Your task to perform on an android device: turn smart compose on in the gmail app Image 0: 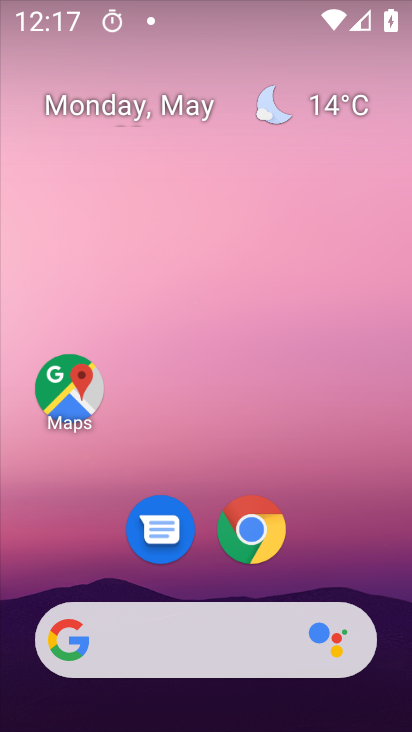
Step 0: drag from (396, 566) to (384, 245)
Your task to perform on an android device: turn smart compose on in the gmail app Image 1: 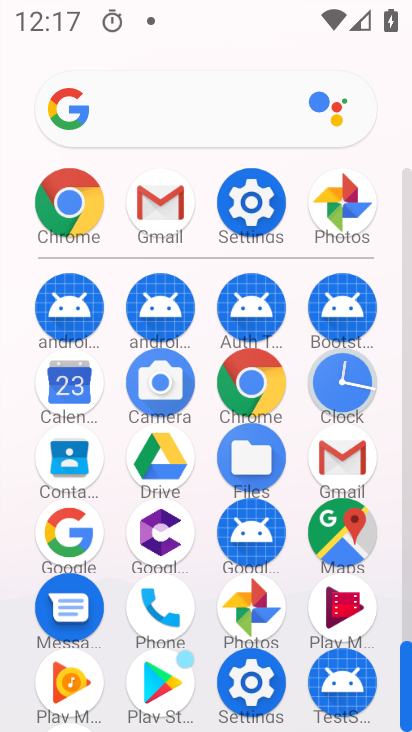
Step 1: click (346, 463)
Your task to perform on an android device: turn smart compose on in the gmail app Image 2: 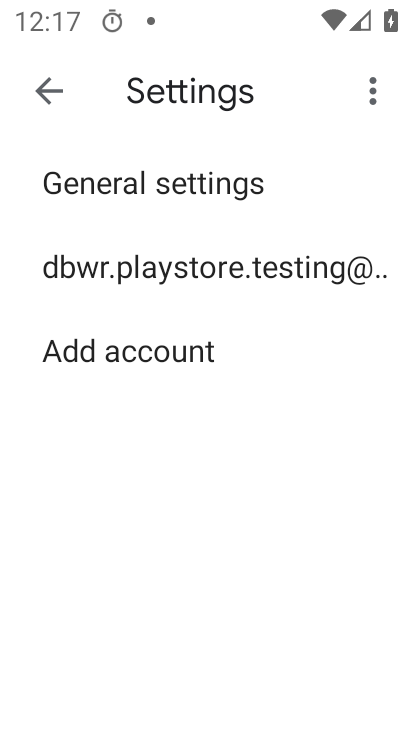
Step 2: click (339, 281)
Your task to perform on an android device: turn smart compose on in the gmail app Image 3: 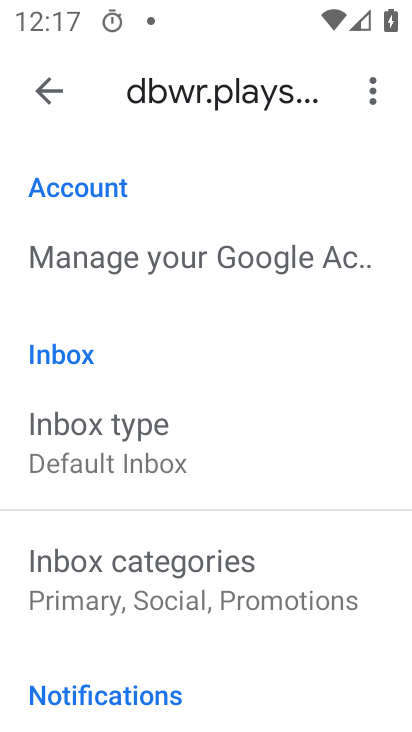
Step 3: task complete